Your task to perform on an android device: turn on notifications settings in the gmail app Image 0: 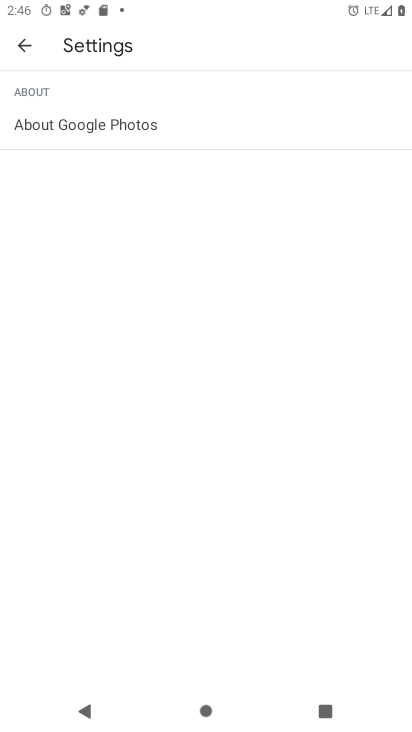
Step 0: press home button
Your task to perform on an android device: turn on notifications settings in the gmail app Image 1: 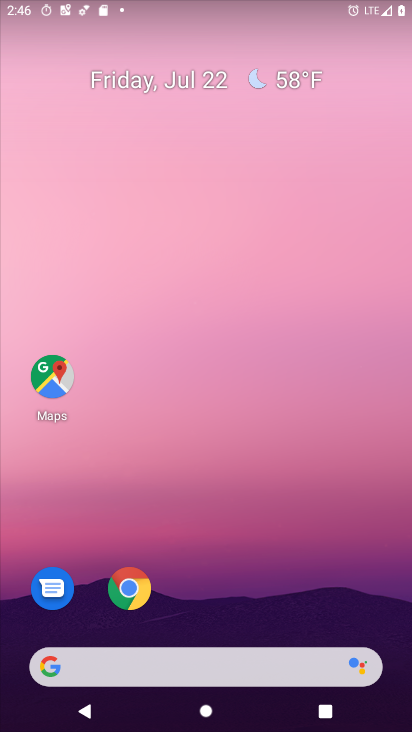
Step 1: drag from (302, 590) to (364, 24)
Your task to perform on an android device: turn on notifications settings in the gmail app Image 2: 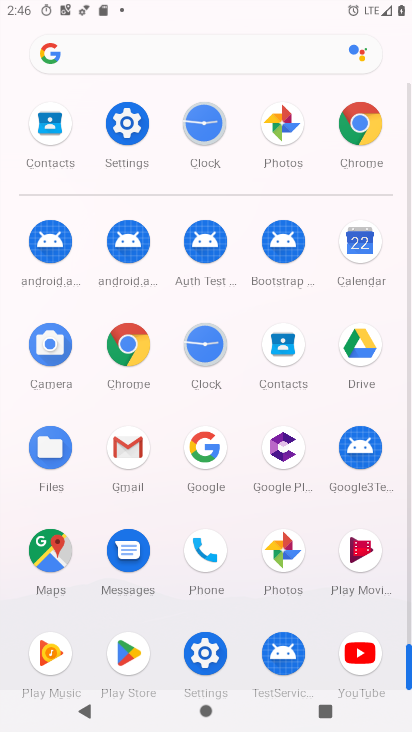
Step 2: click (127, 441)
Your task to perform on an android device: turn on notifications settings in the gmail app Image 3: 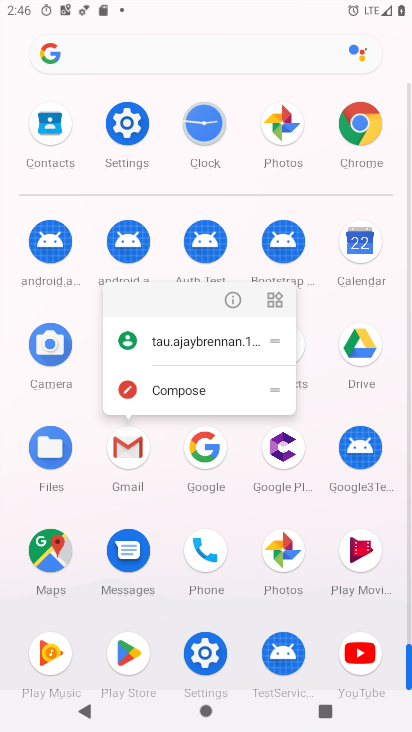
Step 3: click (237, 302)
Your task to perform on an android device: turn on notifications settings in the gmail app Image 4: 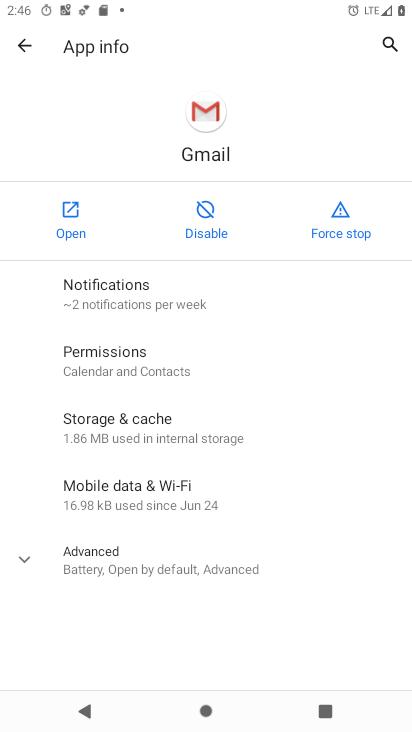
Step 4: click (176, 285)
Your task to perform on an android device: turn on notifications settings in the gmail app Image 5: 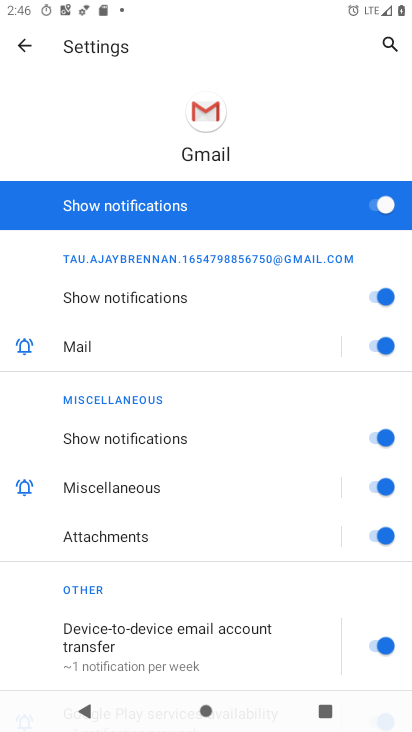
Step 5: task complete